Your task to perform on an android device: Open the calendar app, open the side menu, and click the "Day" option Image 0: 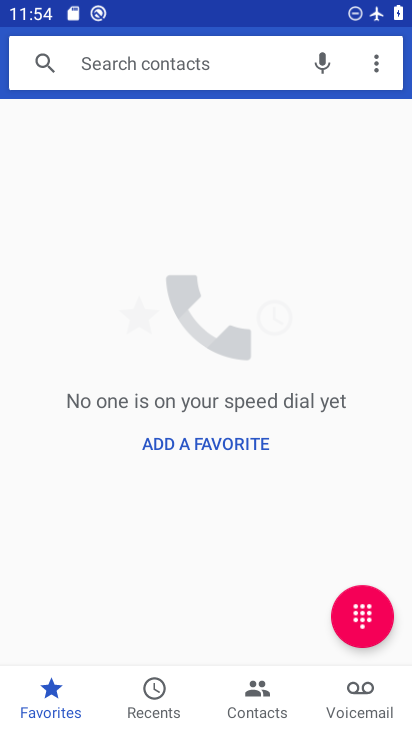
Step 0: press home button
Your task to perform on an android device: Open the calendar app, open the side menu, and click the "Day" option Image 1: 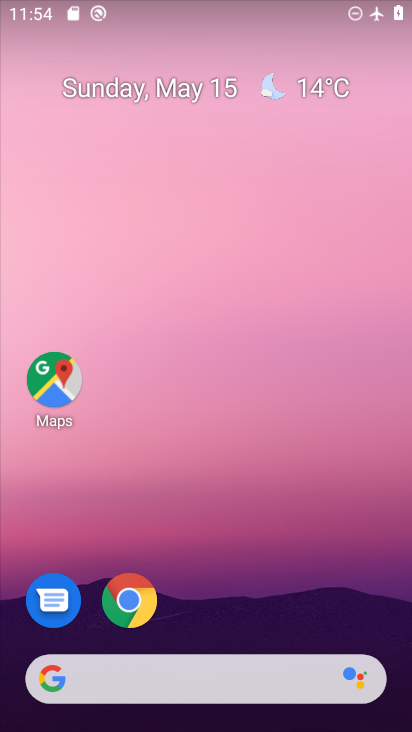
Step 1: drag from (388, 644) to (341, 78)
Your task to perform on an android device: Open the calendar app, open the side menu, and click the "Day" option Image 2: 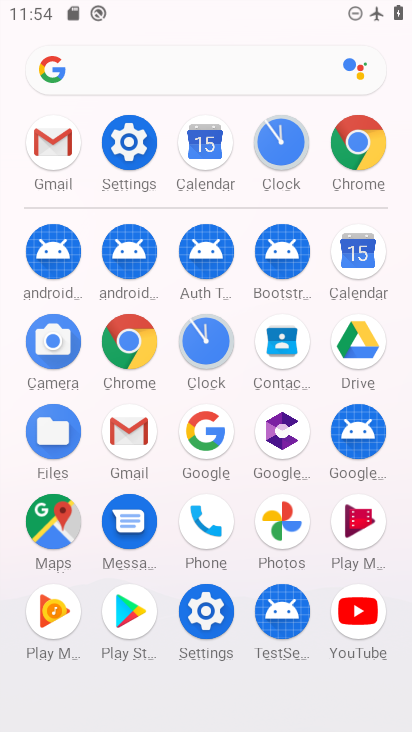
Step 2: click (352, 247)
Your task to perform on an android device: Open the calendar app, open the side menu, and click the "Day" option Image 3: 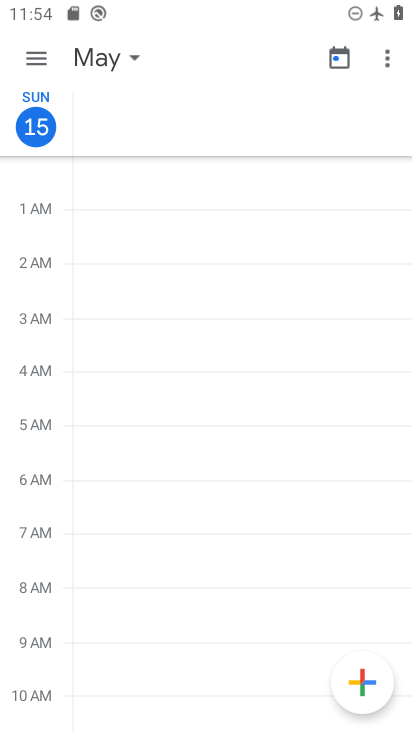
Step 3: click (39, 55)
Your task to perform on an android device: Open the calendar app, open the side menu, and click the "Day" option Image 4: 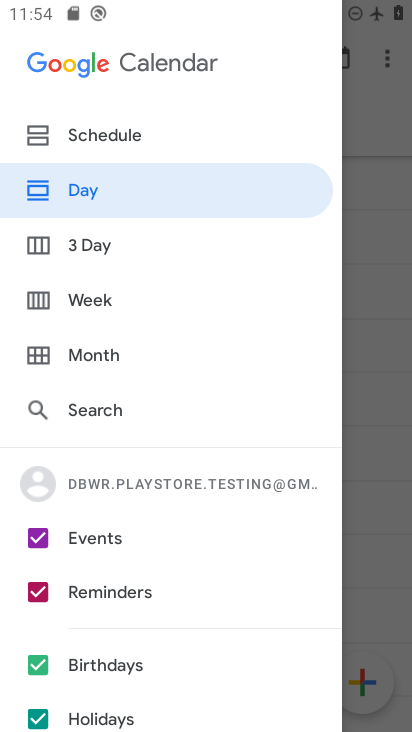
Step 4: click (88, 184)
Your task to perform on an android device: Open the calendar app, open the side menu, and click the "Day" option Image 5: 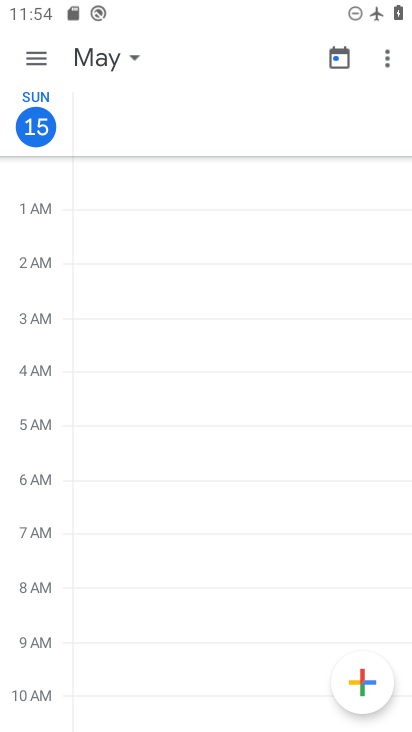
Step 5: task complete